Your task to perform on an android device: Open display settings Image 0: 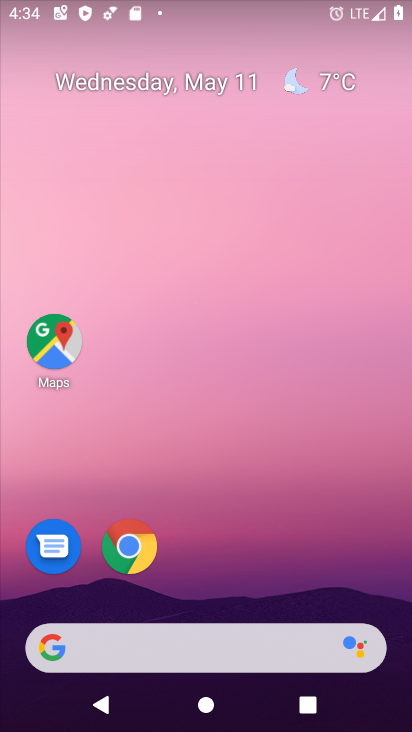
Step 0: drag from (302, 628) to (331, 175)
Your task to perform on an android device: Open display settings Image 1: 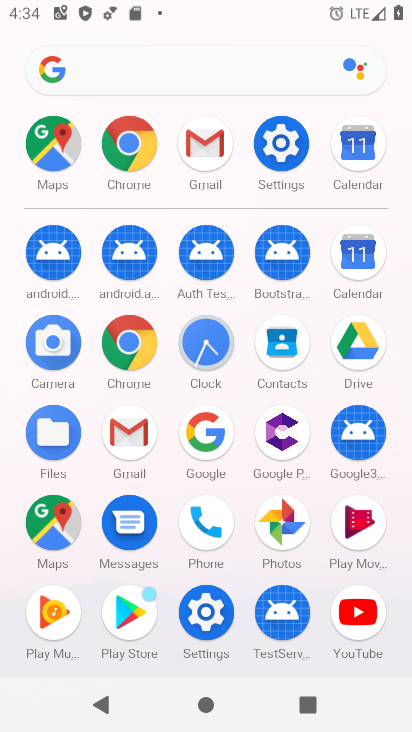
Step 1: click (291, 144)
Your task to perform on an android device: Open display settings Image 2: 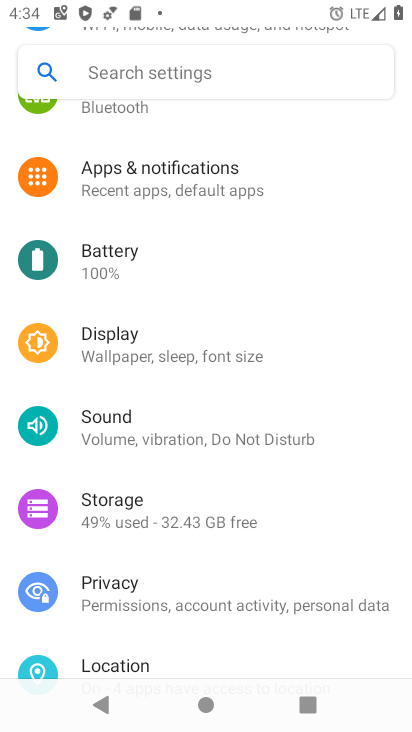
Step 2: click (201, 351)
Your task to perform on an android device: Open display settings Image 3: 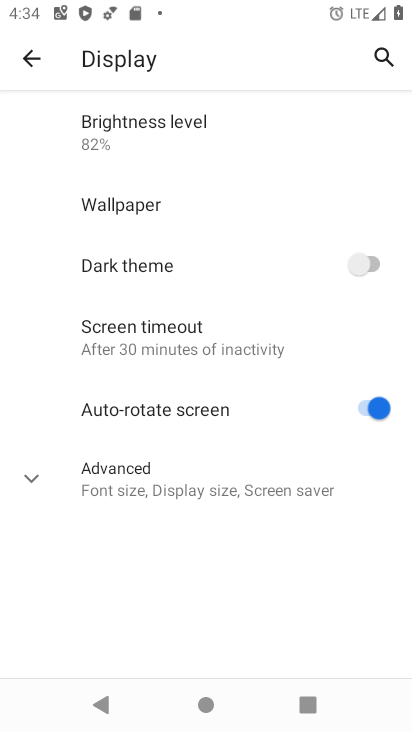
Step 3: task complete